Your task to perform on an android device: Is it going to rain today? Image 0: 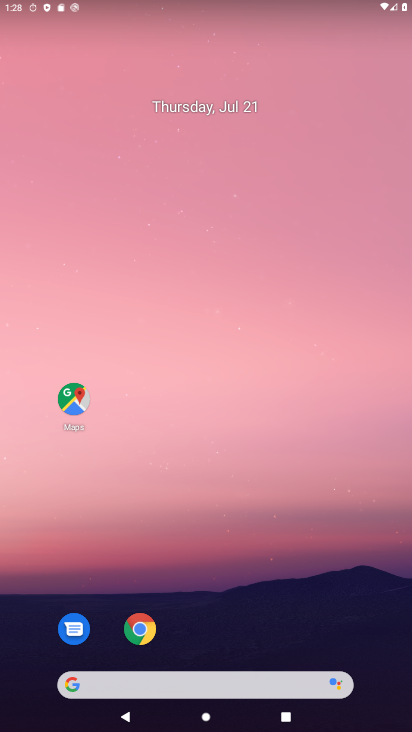
Step 0: click (82, 686)
Your task to perform on an android device: Is it going to rain today? Image 1: 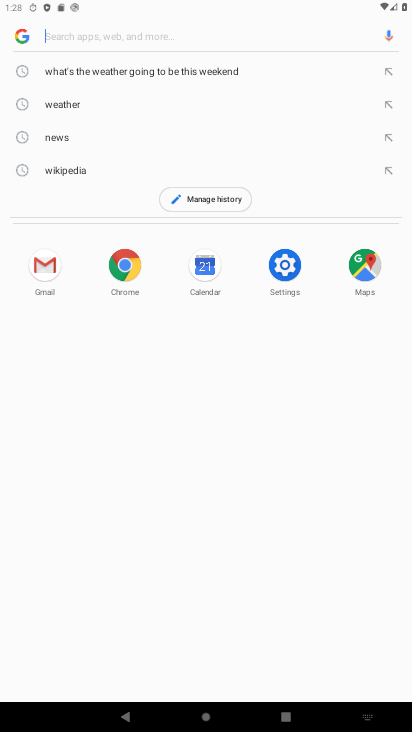
Step 1: type "Is it going to rain today?"
Your task to perform on an android device: Is it going to rain today? Image 2: 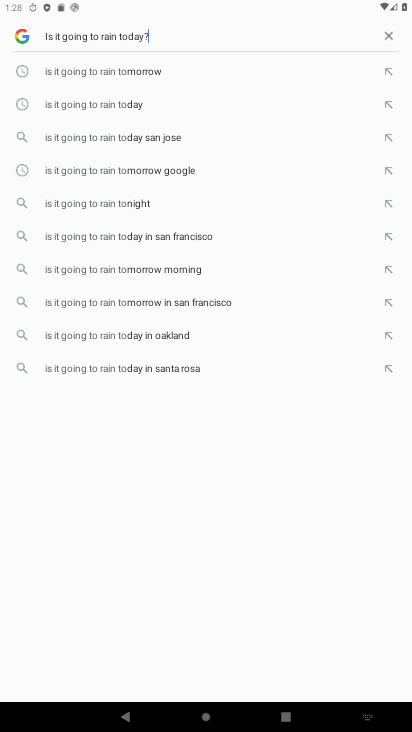
Step 2: type ""
Your task to perform on an android device: Is it going to rain today? Image 3: 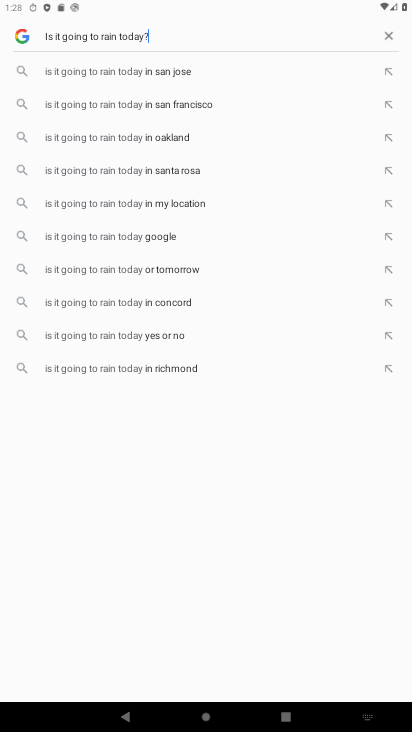
Step 3: type ""
Your task to perform on an android device: Is it going to rain today? Image 4: 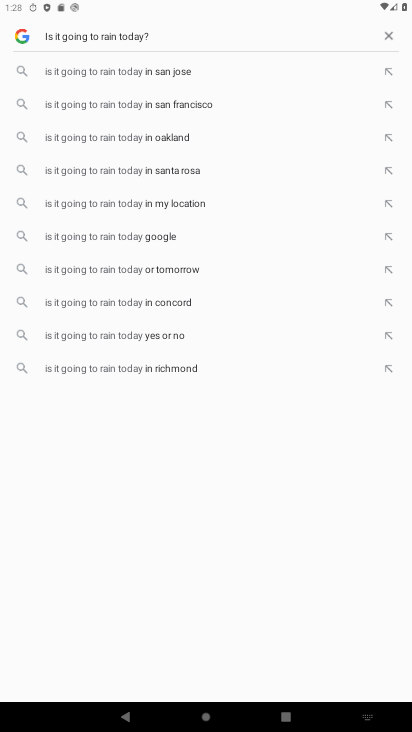
Step 4: type ""
Your task to perform on an android device: Is it going to rain today? Image 5: 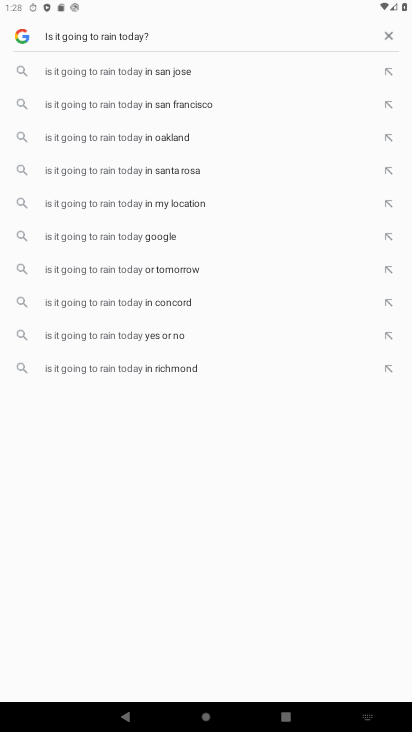
Step 5: task complete